Your task to perform on an android device: turn off smart reply in the gmail app Image 0: 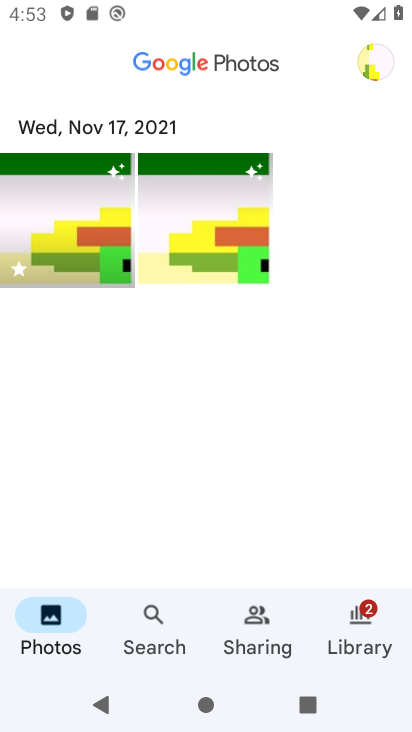
Step 0: press home button
Your task to perform on an android device: turn off smart reply in the gmail app Image 1: 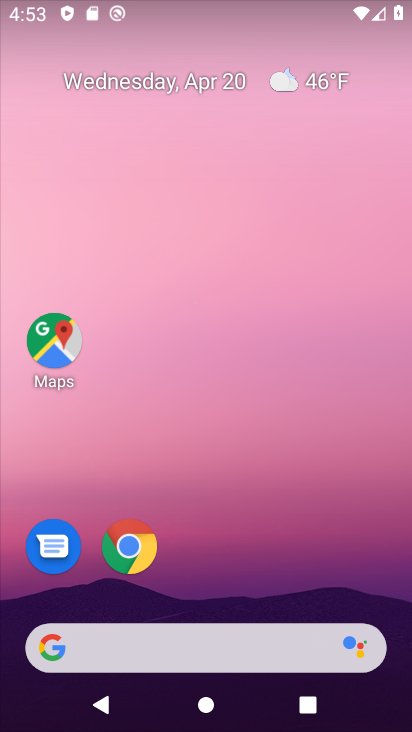
Step 1: drag from (323, 331) to (337, 78)
Your task to perform on an android device: turn off smart reply in the gmail app Image 2: 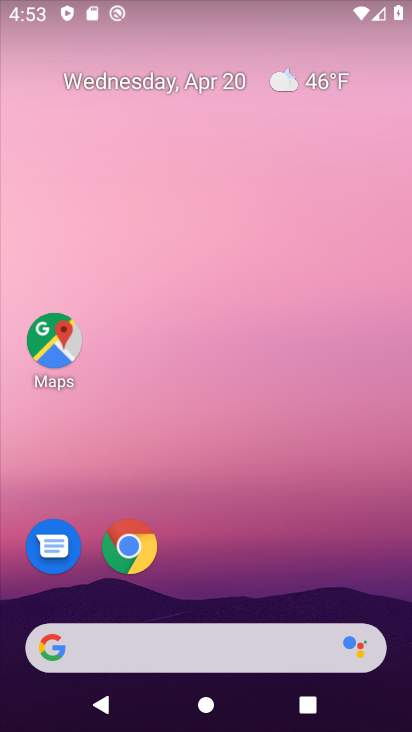
Step 2: drag from (307, 479) to (279, 62)
Your task to perform on an android device: turn off smart reply in the gmail app Image 3: 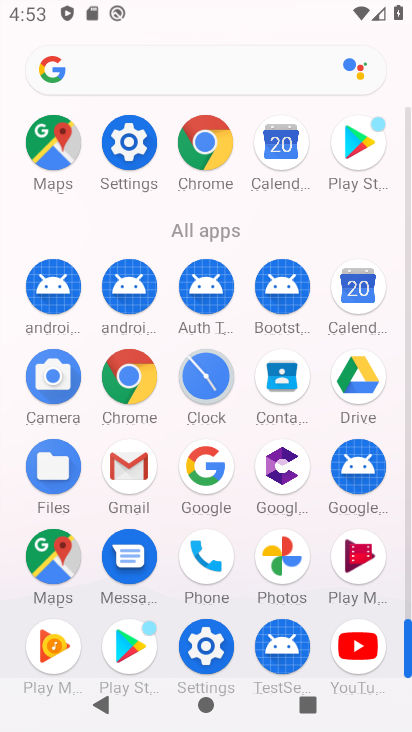
Step 3: click (108, 473)
Your task to perform on an android device: turn off smart reply in the gmail app Image 4: 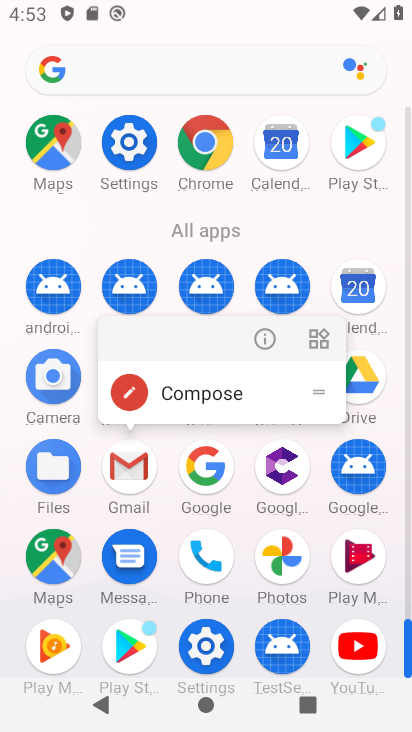
Step 4: click (128, 471)
Your task to perform on an android device: turn off smart reply in the gmail app Image 5: 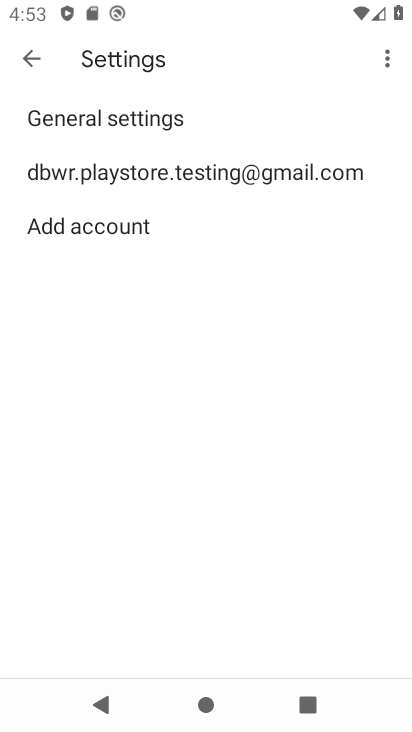
Step 5: click (157, 181)
Your task to perform on an android device: turn off smart reply in the gmail app Image 6: 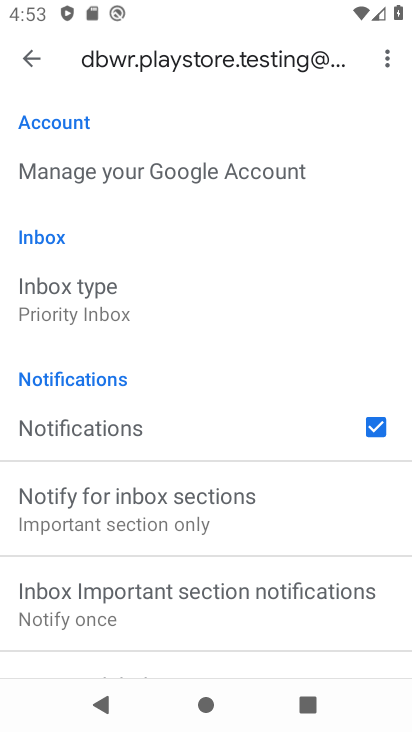
Step 6: drag from (77, 522) to (161, 128)
Your task to perform on an android device: turn off smart reply in the gmail app Image 7: 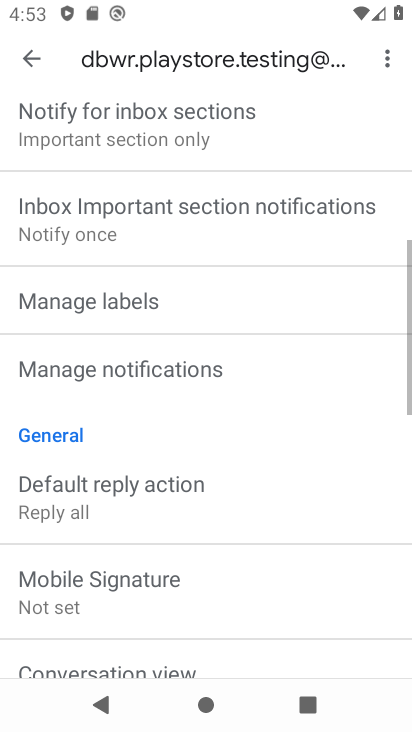
Step 7: drag from (194, 594) to (308, 209)
Your task to perform on an android device: turn off smart reply in the gmail app Image 8: 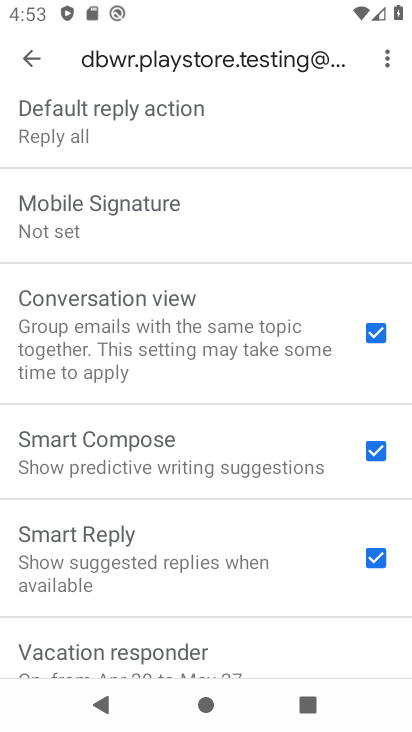
Step 8: click (383, 561)
Your task to perform on an android device: turn off smart reply in the gmail app Image 9: 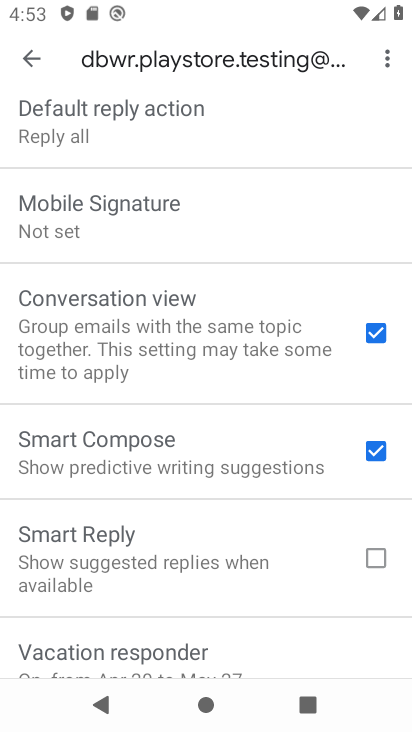
Step 9: task complete